Your task to perform on an android device: Open internet settings Image 0: 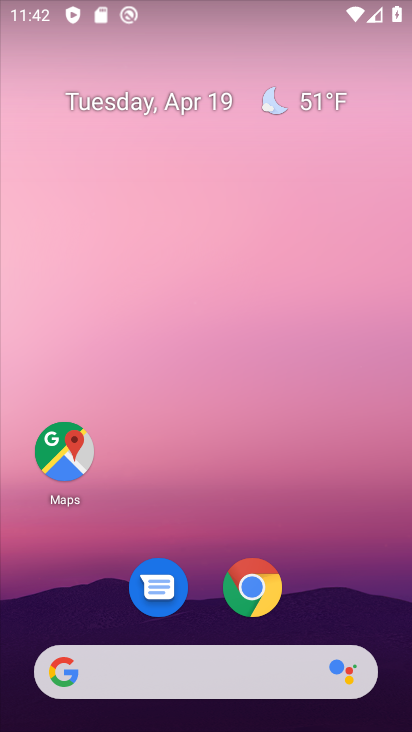
Step 0: drag from (205, 360) to (231, 71)
Your task to perform on an android device: Open internet settings Image 1: 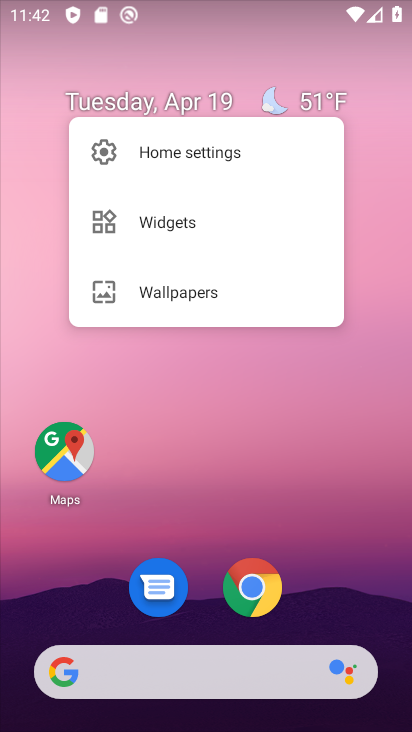
Step 1: drag from (208, 442) to (246, 91)
Your task to perform on an android device: Open internet settings Image 2: 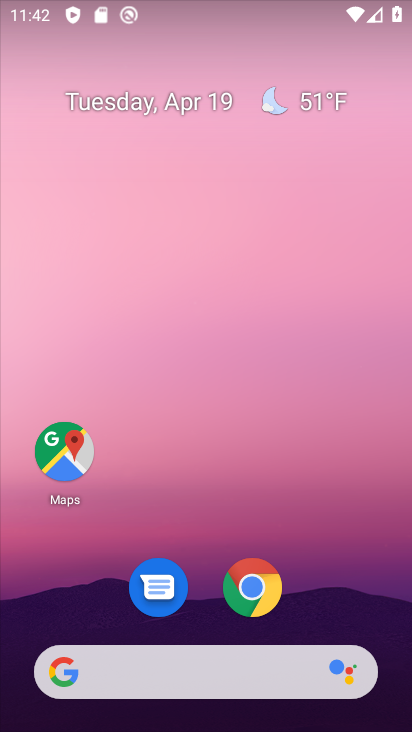
Step 2: drag from (197, 614) to (240, 119)
Your task to perform on an android device: Open internet settings Image 3: 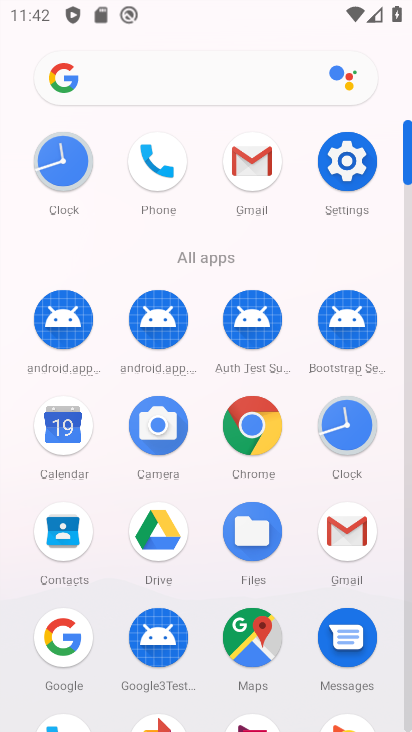
Step 3: click (341, 168)
Your task to perform on an android device: Open internet settings Image 4: 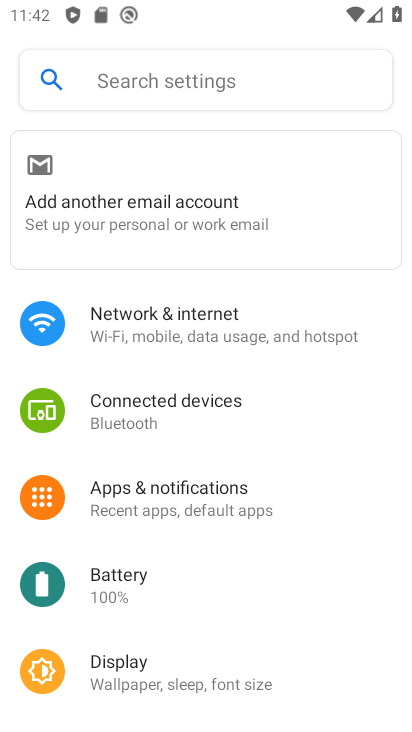
Step 4: click (171, 335)
Your task to perform on an android device: Open internet settings Image 5: 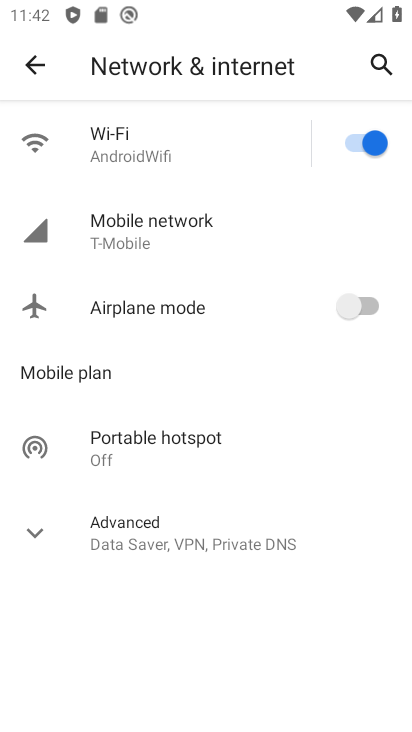
Step 5: task complete